Your task to perform on an android device: turn off location Image 0: 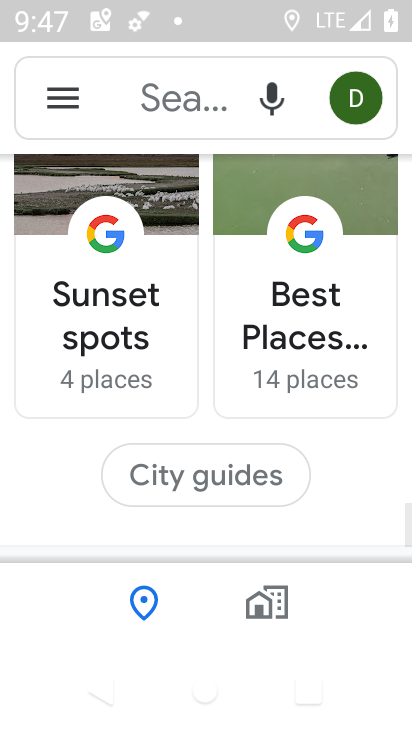
Step 0: press home button
Your task to perform on an android device: turn off location Image 1: 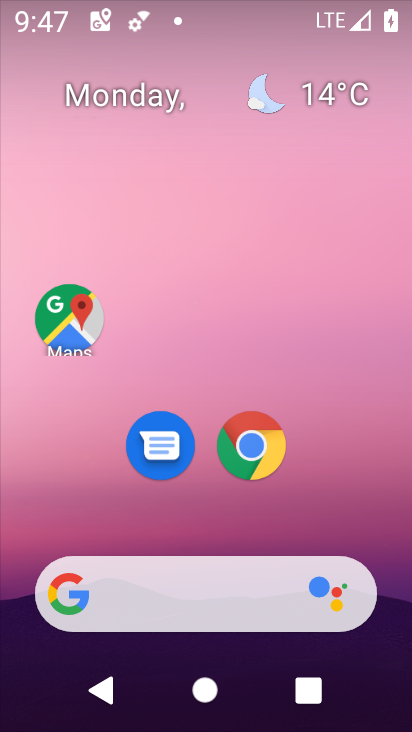
Step 1: drag from (198, 535) to (238, 62)
Your task to perform on an android device: turn off location Image 2: 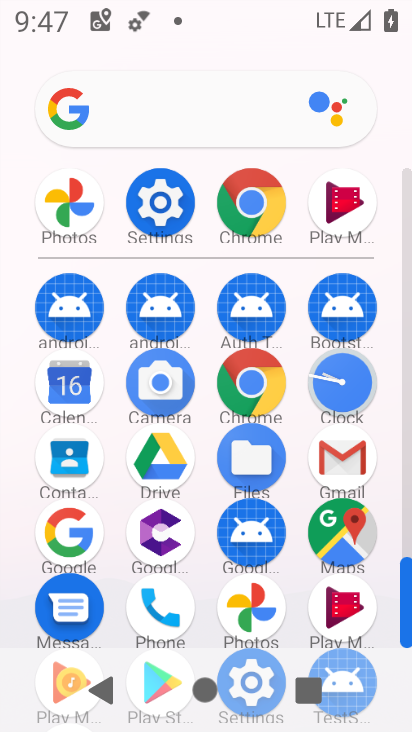
Step 2: click (156, 197)
Your task to perform on an android device: turn off location Image 3: 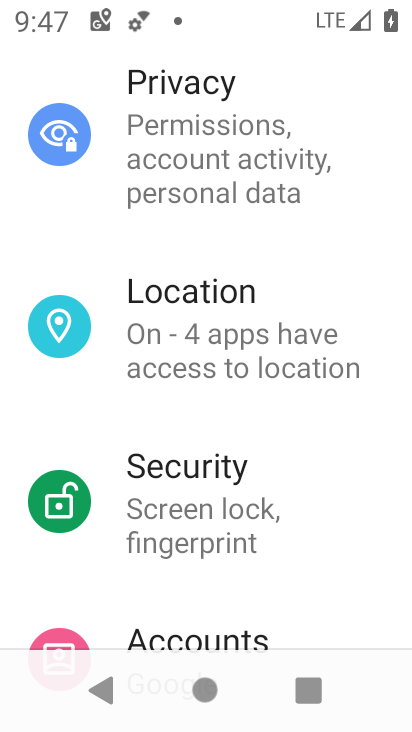
Step 3: click (108, 317)
Your task to perform on an android device: turn off location Image 4: 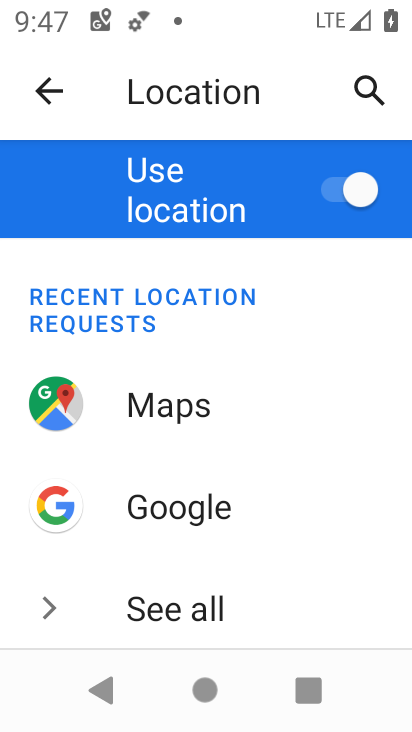
Step 4: click (335, 191)
Your task to perform on an android device: turn off location Image 5: 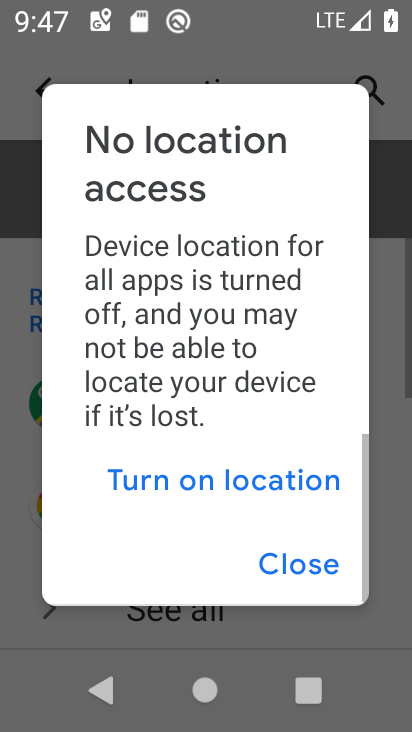
Step 5: task complete